Your task to perform on an android device: empty trash in the gmail app Image 0: 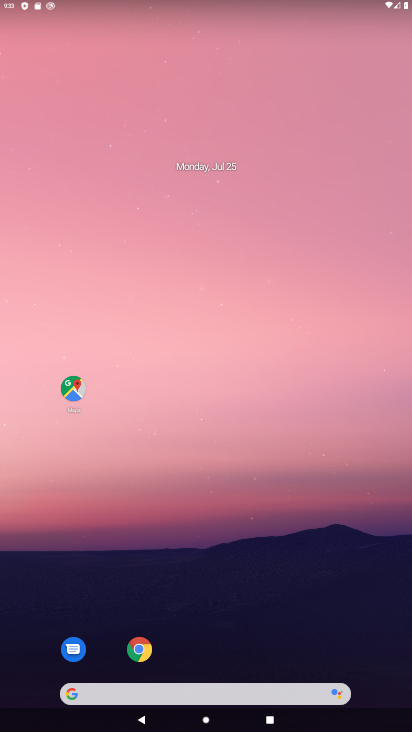
Step 0: drag from (207, 623) to (234, 0)
Your task to perform on an android device: empty trash in the gmail app Image 1: 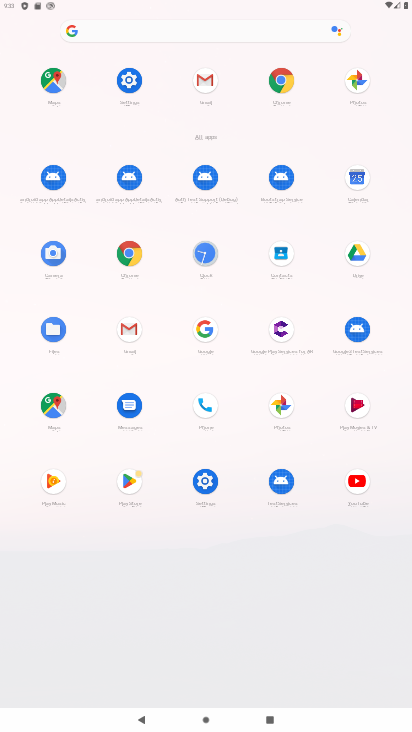
Step 1: click (127, 331)
Your task to perform on an android device: empty trash in the gmail app Image 2: 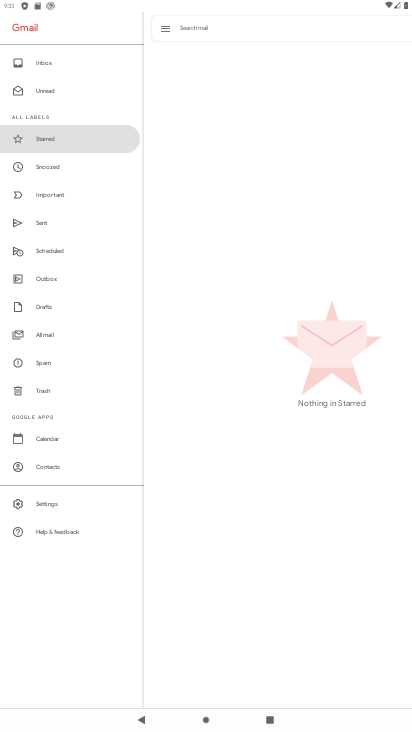
Step 2: click (42, 392)
Your task to perform on an android device: empty trash in the gmail app Image 3: 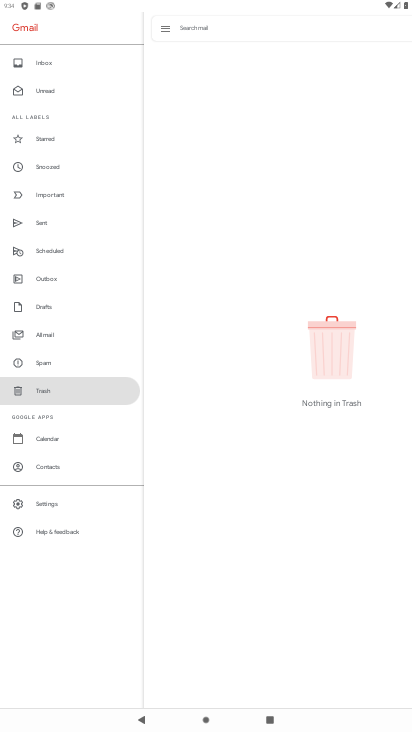
Step 3: task complete